Your task to perform on an android device: star an email in the gmail app Image 0: 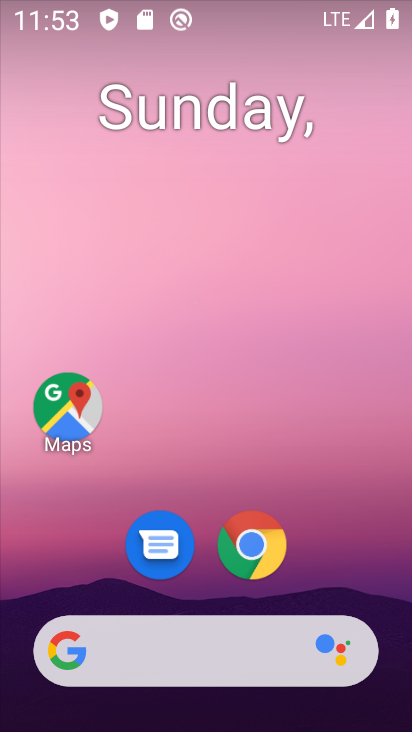
Step 0: drag from (349, 586) to (347, 186)
Your task to perform on an android device: star an email in the gmail app Image 1: 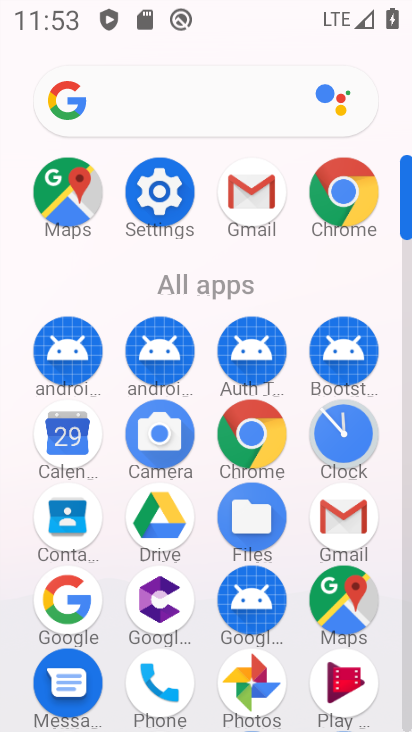
Step 1: click (348, 534)
Your task to perform on an android device: star an email in the gmail app Image 2: 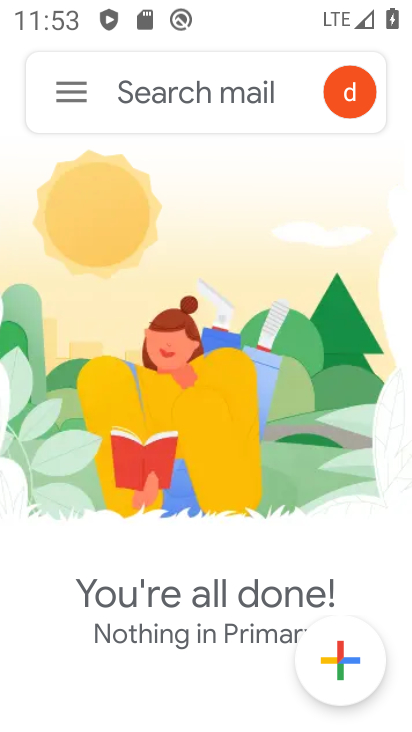
Step 2: click (77, 81)
Your task to perform on an android device: star an email in the gmail app Image 3: 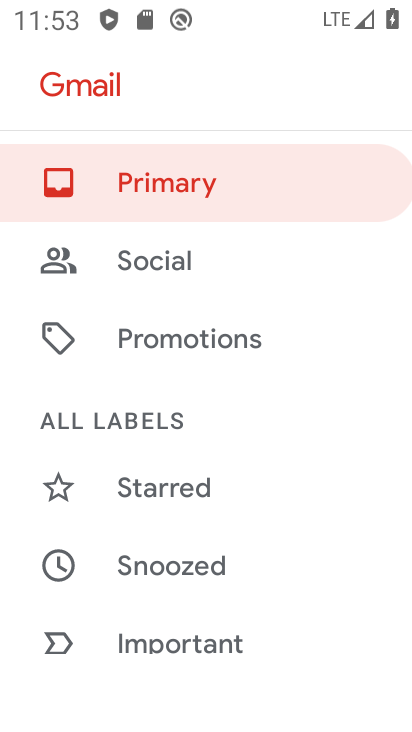
Step 3: drag from (304, 539) to (316, 391)
Your task to perform on an android device: star an email in the gmail app Image 4: 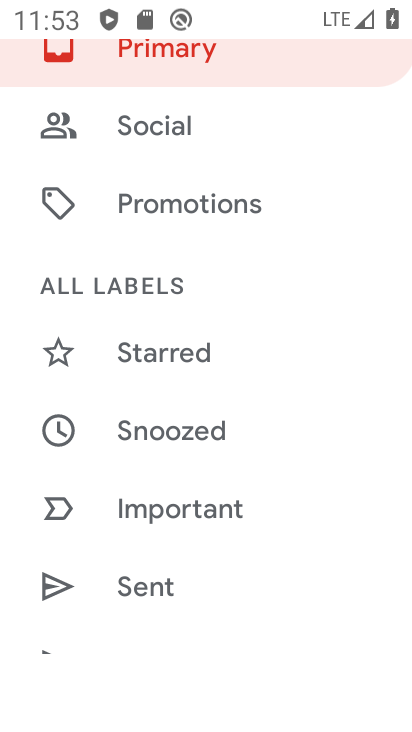
Step 4: drag from (325, 592) to (341, 422)
Your task to perform on an android device: star an email in the gmail app Image 5: 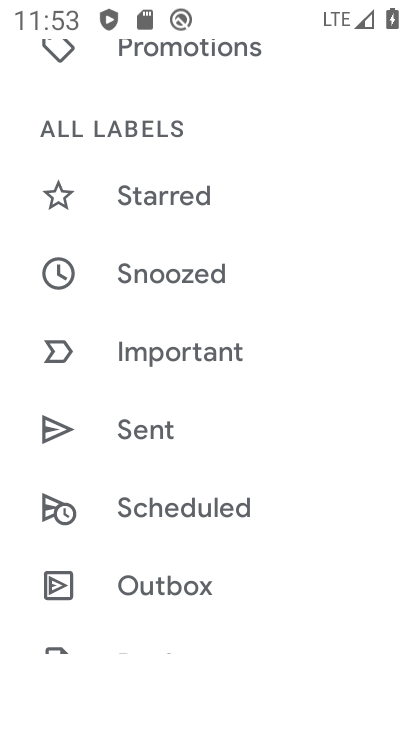
Step 5: drag from (333, 543) to (327, 422)
Your task to perform on an android device: star an email in the gmail app Image 6: 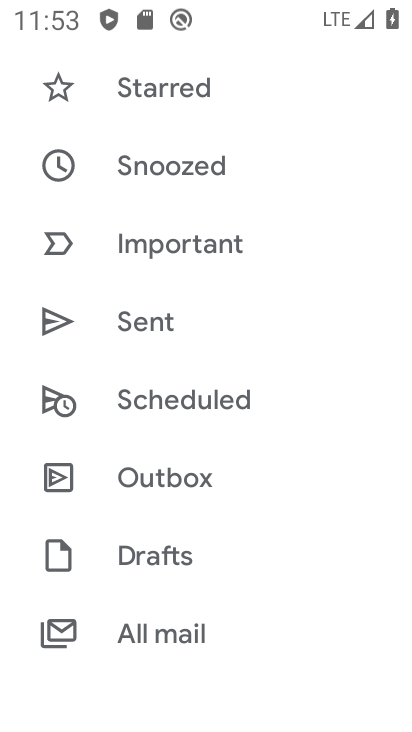
Step 6: drag from (300, 325) to (309, 444)
Your task to perform on an android device: star an email in the gmail app Image 7: 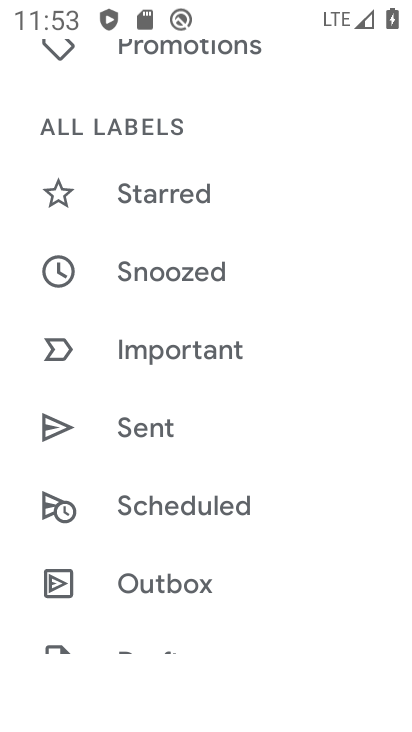
Step 7: drag from (310, 283) to (331, 448)
Your task to perform on an android device: star an email in the gmail app Image 8: 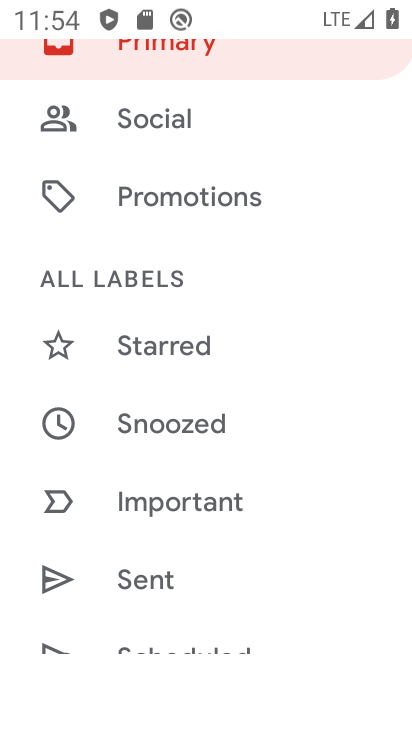
Step 8: drag from (317, 250) to (312, 425)
Your task to perform on an android device: star an email in the gmail app Image 9: 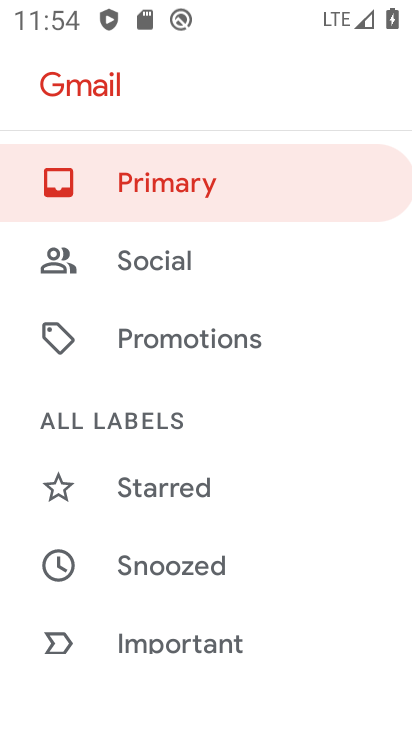
Step 9: click (220, 181)
Your task to perform on an android device: star an email in the gmail app Image 10: 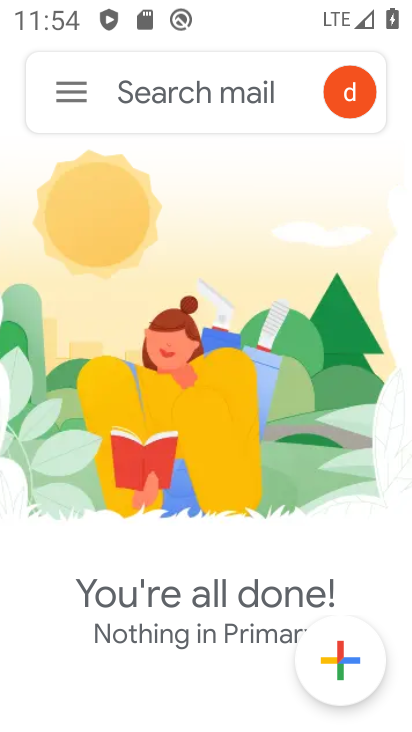
Step 10: task complete